Your task to perform on an android device: Open Youtube and go to the subscriptions tab Image 0: 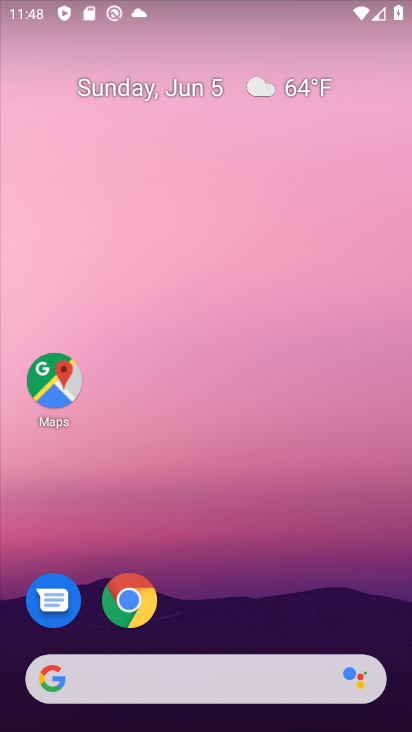
Step 0: drag from (182, 638) to (130, 364)
Your task to perform on an android device: Open Youtube and go to the subscriptions tab Image 1: 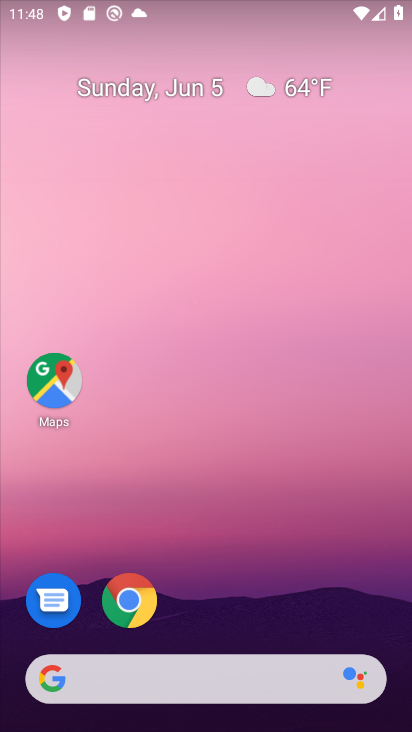
Step 1: drag from (238, 645) to (139, 72)
Your task to perform on an android device: Open Youtube and go to the subscriptions tab Image 2: 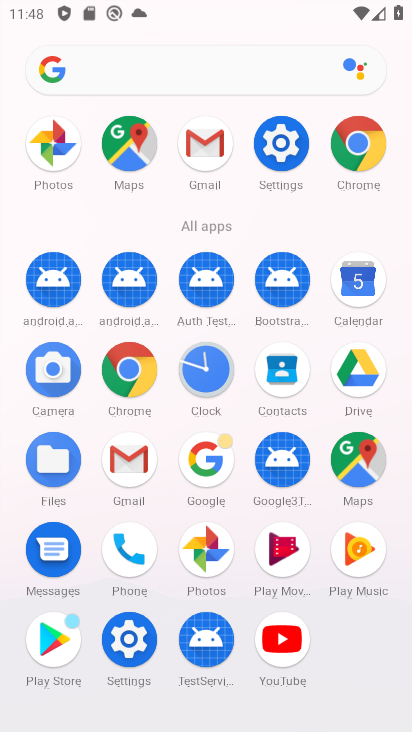
Step 2: click (268, 648)
Your task to perform on an android device: Open Youtube and go to the subscriptions tab Image 3: 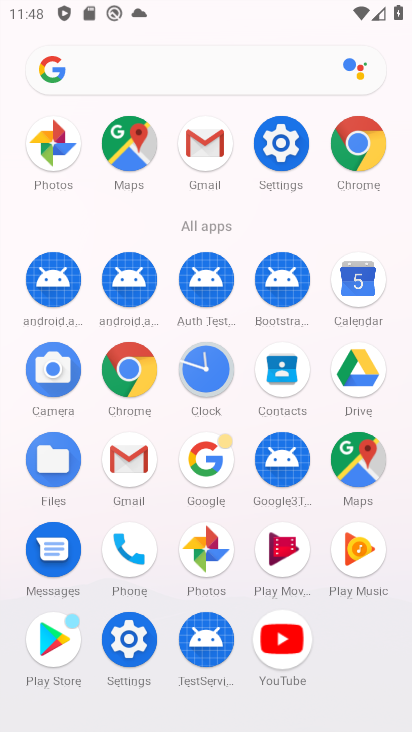
Step 3: click (275, 646)
Your task to perform on an android device: Open Youtube and go to the subscriptions tab Image 4: 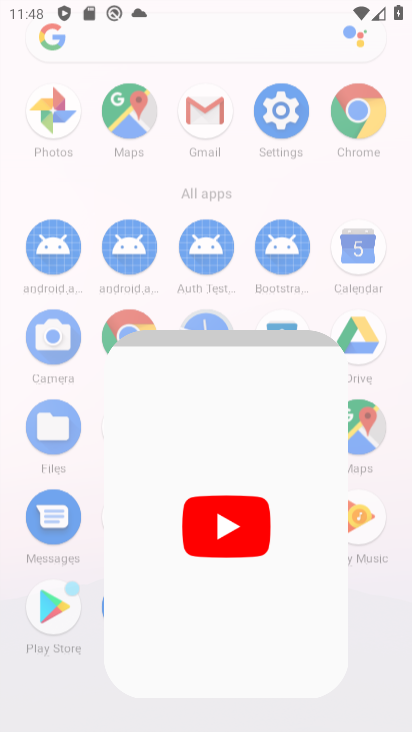
Step 4: click (275, 646)
Your task to perform on an android device: Open Youtube and go to the subscriptions tab Image 5: 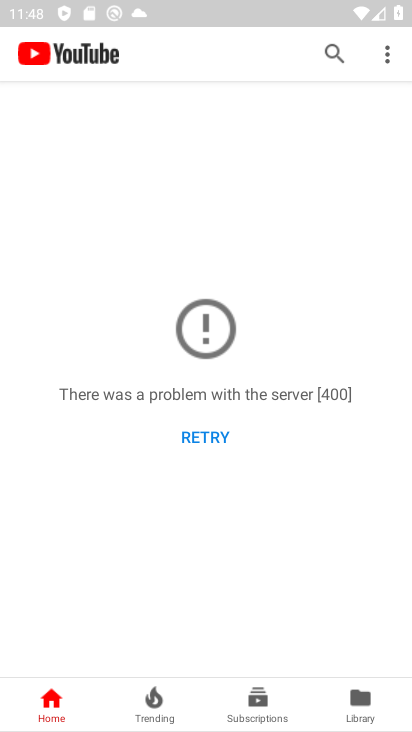
Step 5: click (253, 679)
Your task to perform on an android device: Open Youtube and go to the subscriptions tab Image 6: 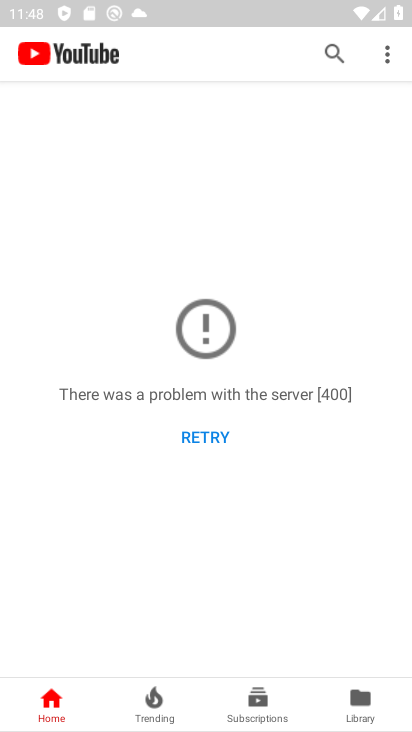
Step 6: click (253, 686)
Your task to perform on an android device: Open Youtube and go to the subscriptions tab Image 7: 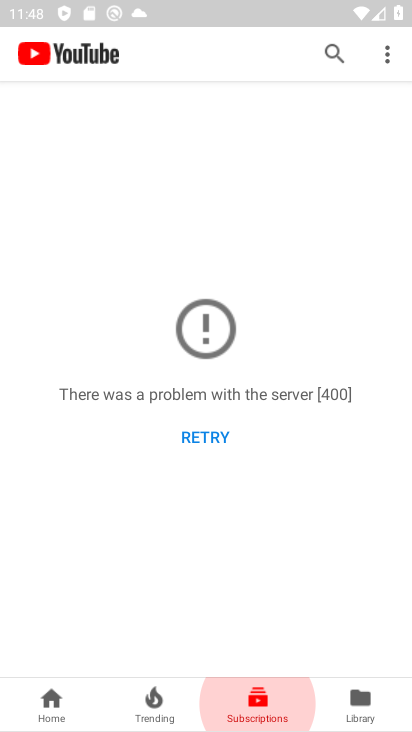
Step 7: click (253, 686)
Your task to perform on an android device: Open Youtube and go to the subscriptions tab Image 8: 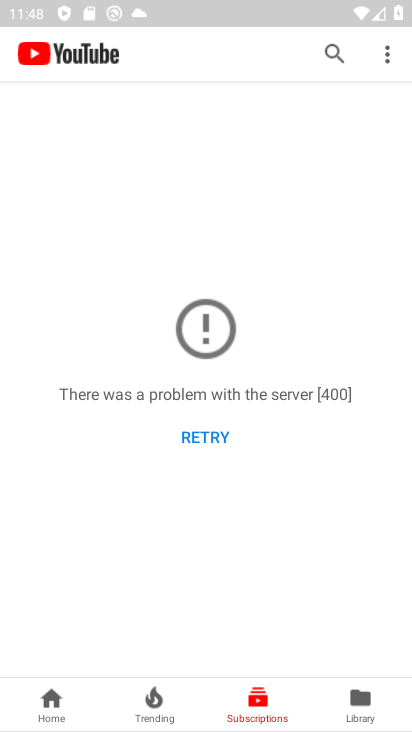
Step 8: click (253, 686)
Your task to perform on an android device: Open Youtube and go to the subscriptions tab Image 9: 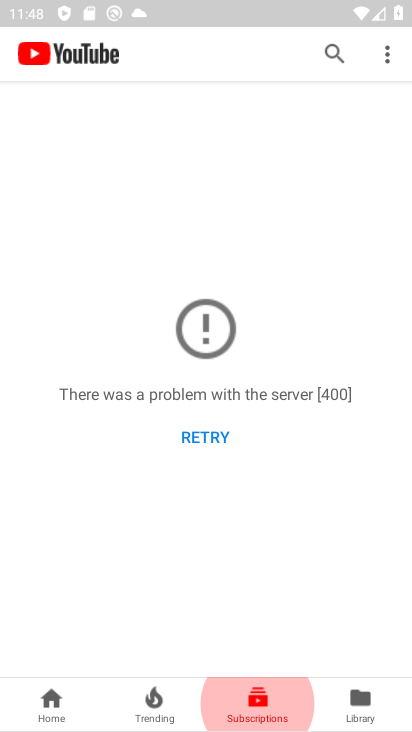
Step 9: click (253, 686)
Your task to perform on an android device: Open Youtube and go to the subscriptions tab Image 10: 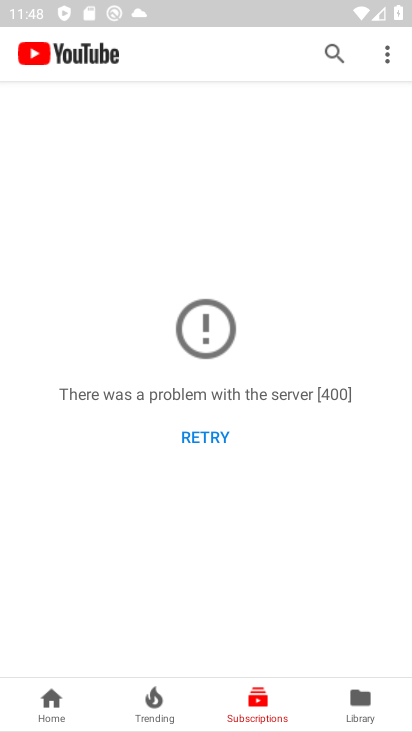
Step 10: task complete